Your task to perform on an android device: toggle airplane mode Image 0: 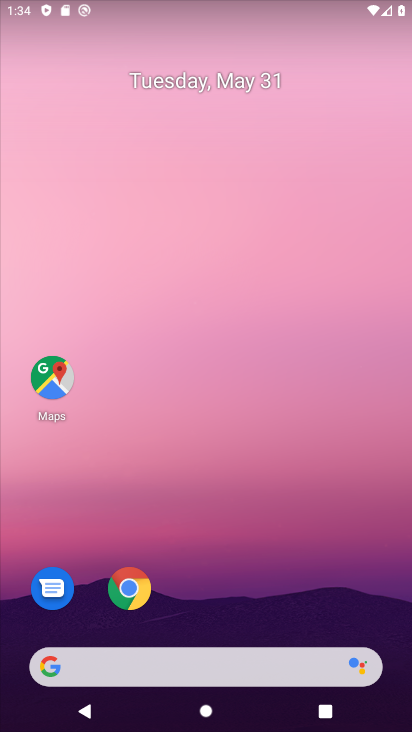
Step 0: drag from (246, 618) to (174, 139)
Your task to perform on an android device: toggle airplane mode Image 1: 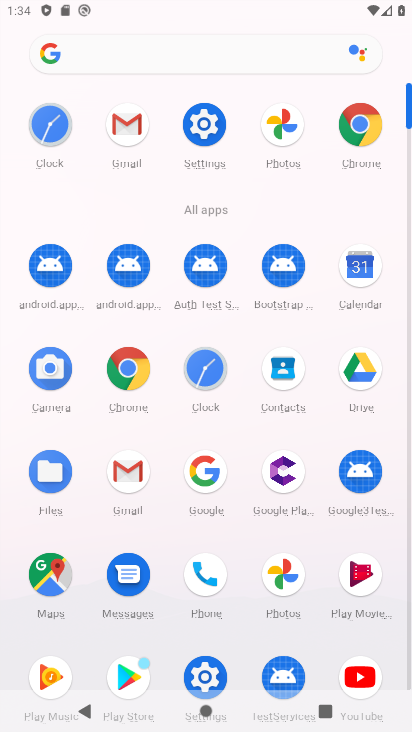
Step 1: click (209, 121)
Your task to perform on an android device: toggle airplane mode Image 2: 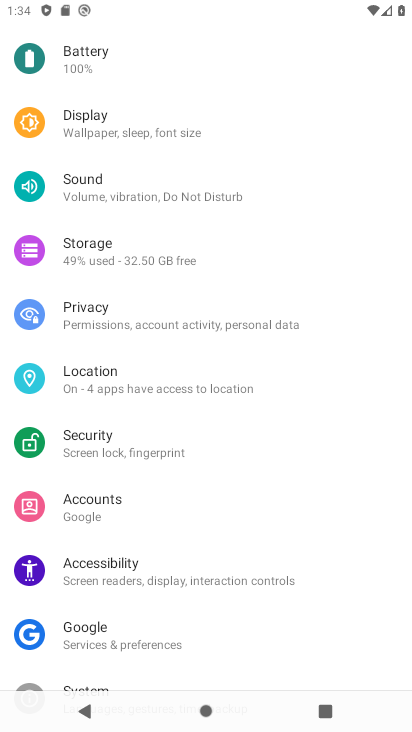
Step 2: drag from (184, 107) to (218, 450)
Your task to perform on an android device: toggle airplane mode Image 3: 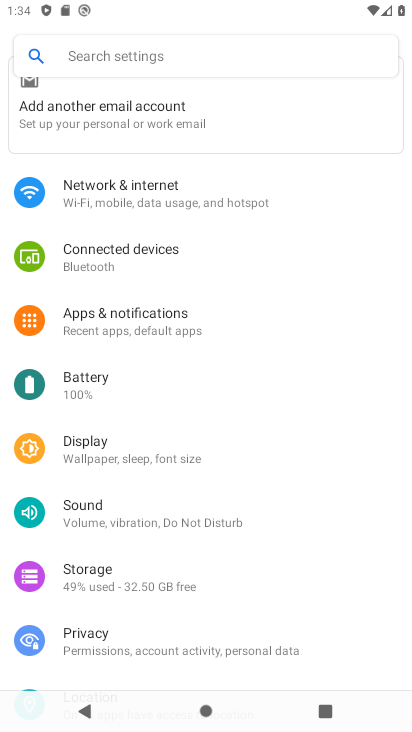
Step 3: click (193, 193)
Your task to perform on an android device: toggle airplane mode Image 4: 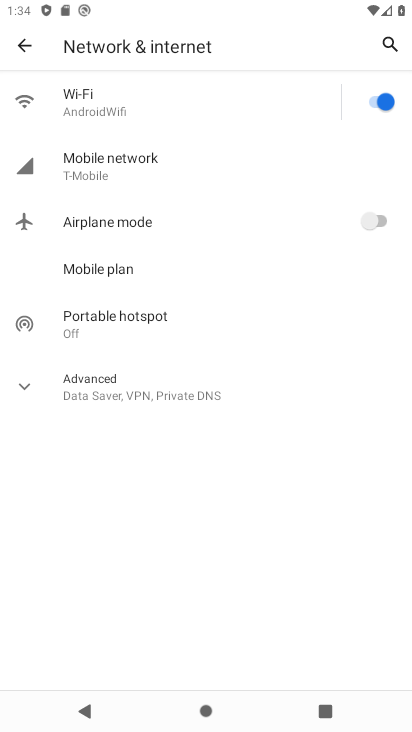
Step 4: click (316, 236)
Your task to perform on an android device: toggle airplane mode Image 5: 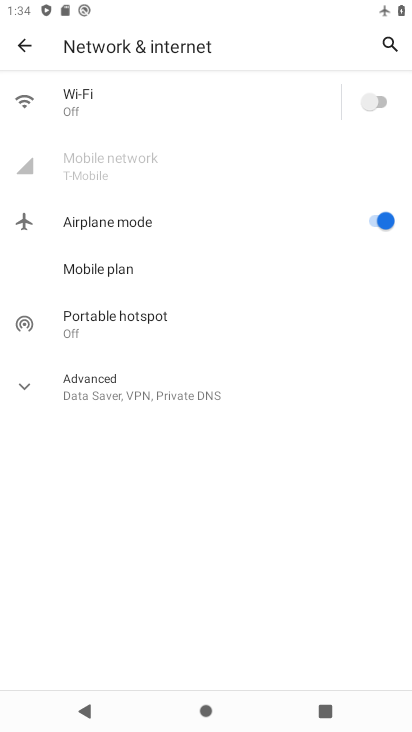
Step 5: task complete